Your task to perform on an android device: change alarm snooze length Image 0: 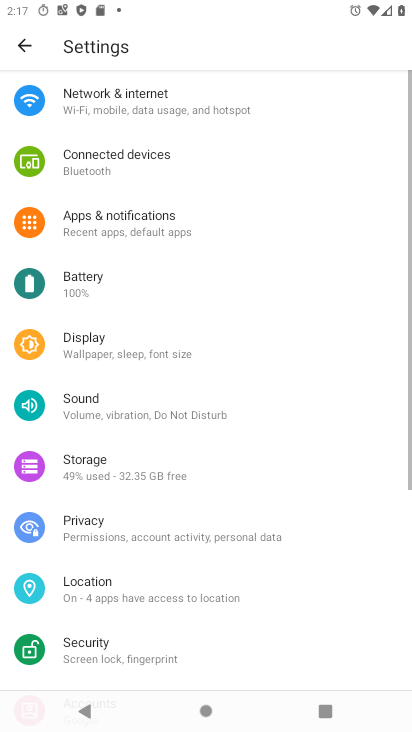
Step 0: press home button
Your task to perform on an android device: change alarm snooze length Image 1: 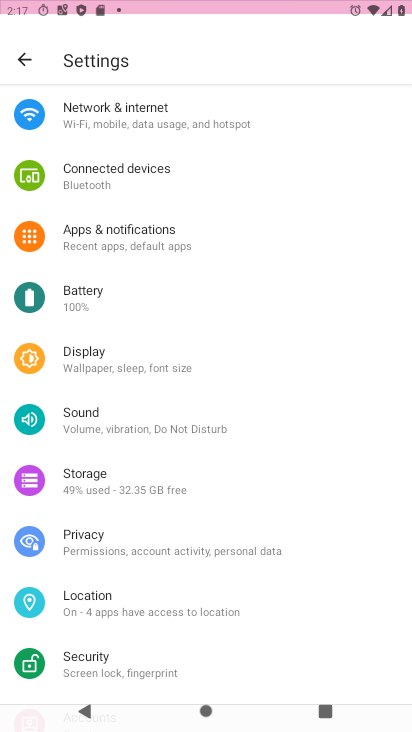
Step 1: drag from (240, 600) to (313, 134)
Your task to perform on an android device: change alarm snooze length Image 2: 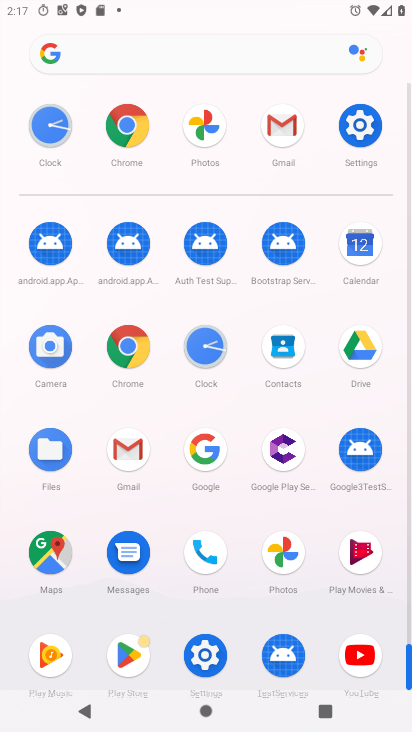
Step 2: click (203, 341)
Your task to perform on an android device: change alarm snooze length Image 3: 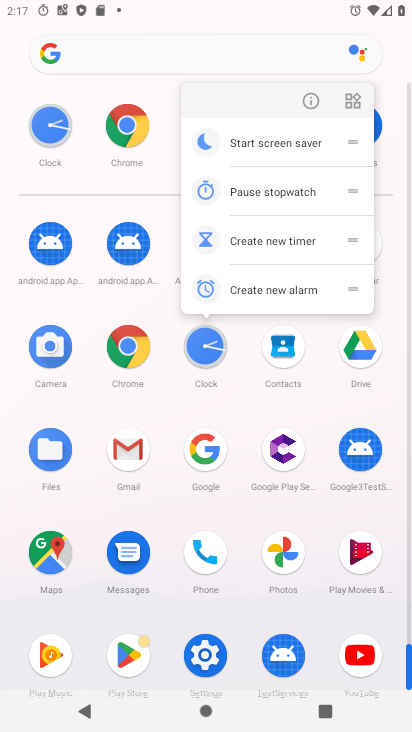
Step 3: click (310, 95)
Your task to perform on an android device: change alarm snooze length Image 4: 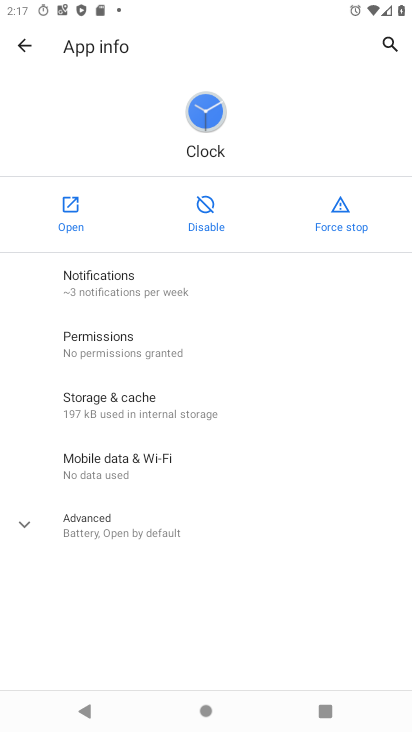
Step 4: click (78, 222)
Your task to perform on an android device: change alarm snooze length Image 5: 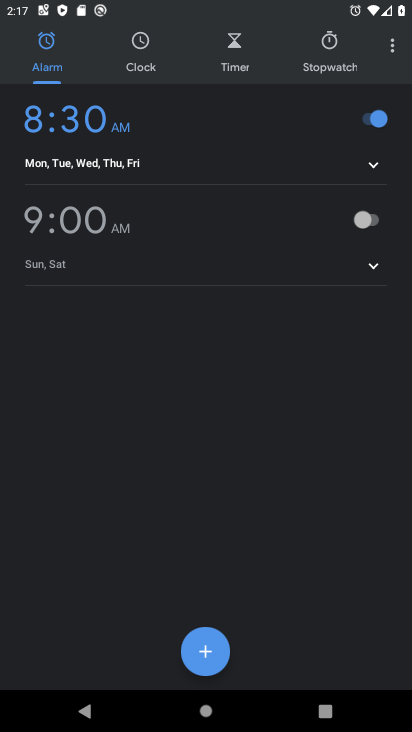
Step 5: click (402, 48)
Your task to perform on an android device: change alarm snooze length Image 6: 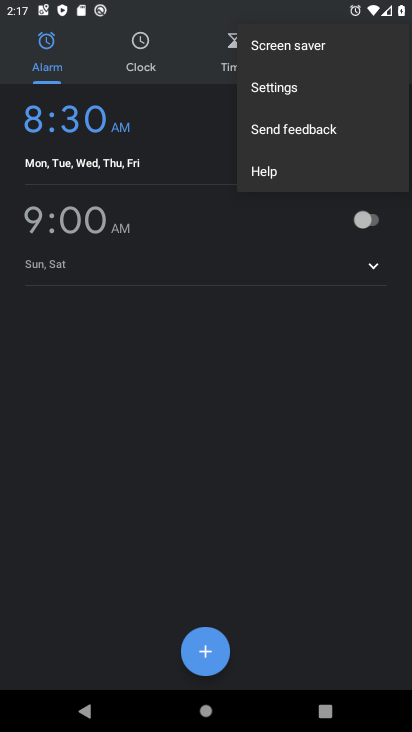
Step 6: click (309, 88)
Your task to perform on an android device: change alarm snooze length Image 7: 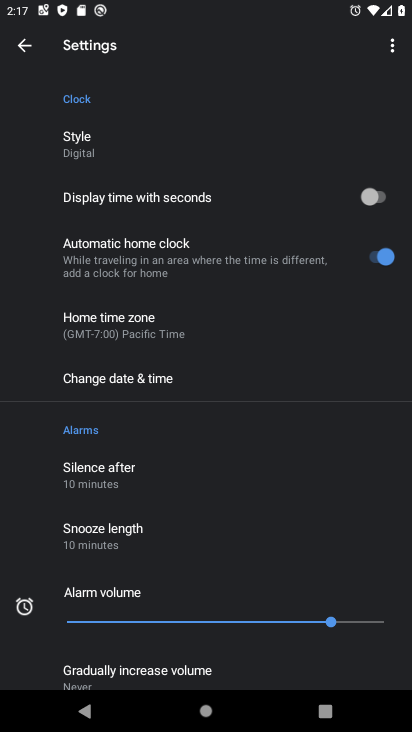
Step 7: click (120, 543)
Your task to perform on an android device: change alarm snooze length Image 8: 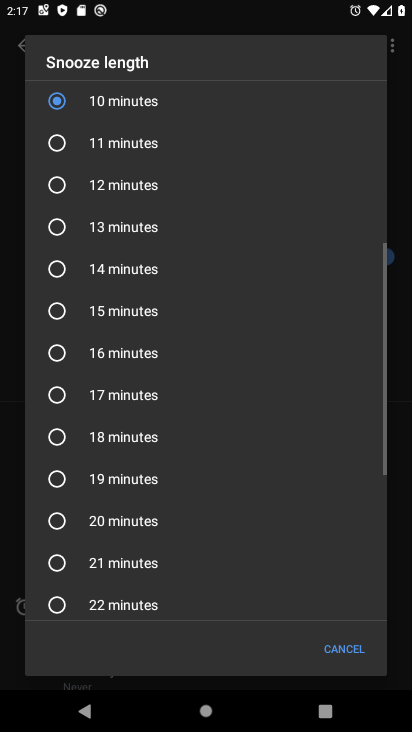
Step 8: click (89, 137)
Your task to perform on an android device: change alarm snooze length Image 9: 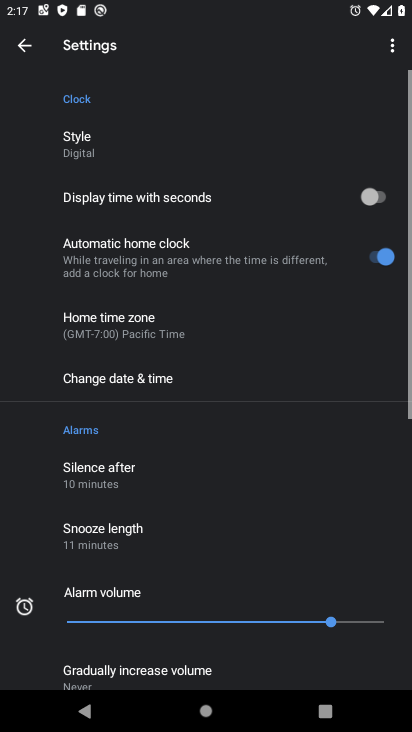
Step 9: task complete